Your task to perform on an android device: find snoozed emails in the gmail app Image 0: 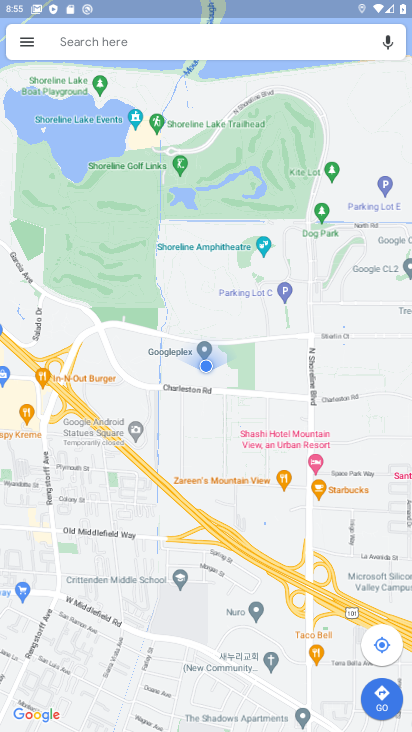
Step 0: press home button
Your task to perform on an android device: find snoozed emails in the gmail app Image 1: 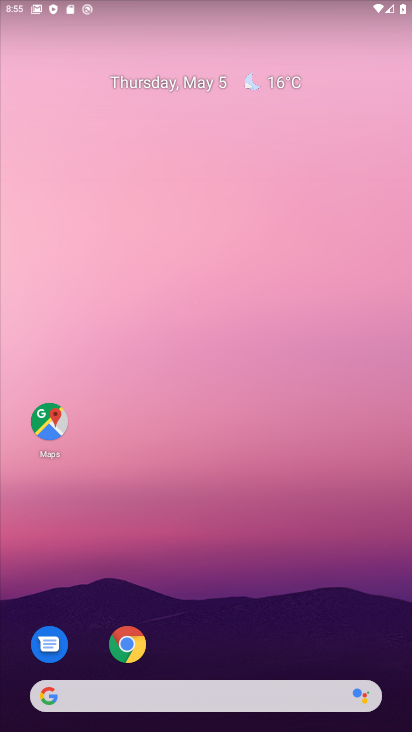
Step 1: drag from (190, 645) to (287, 13)
Your task to perform on an android device: find snoozed emails in the gmail app Image 2: 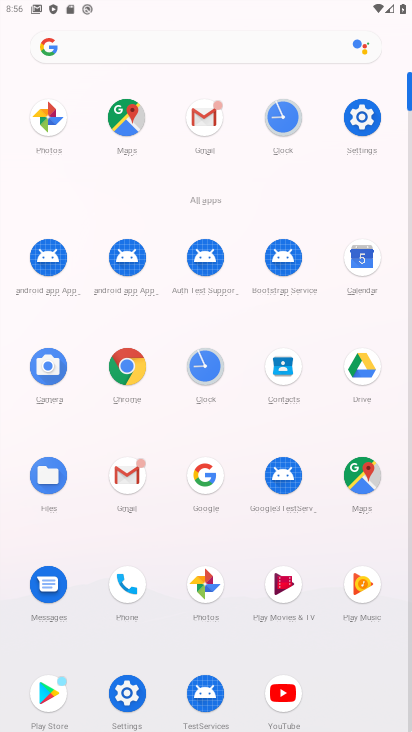
Step 2: click (195, 137)
Your task to perform on an android device: find snoozed emails in the gmail app Image 3: 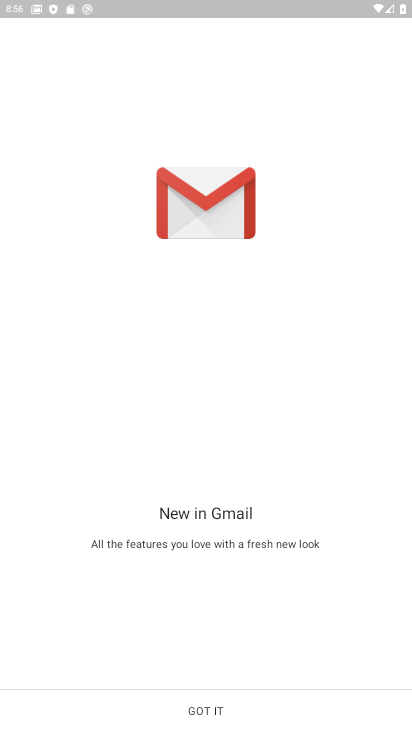
Step 3: click (194, 709)
Your task to perform on an android device: find snoozed emails in the gmail app Image 4: 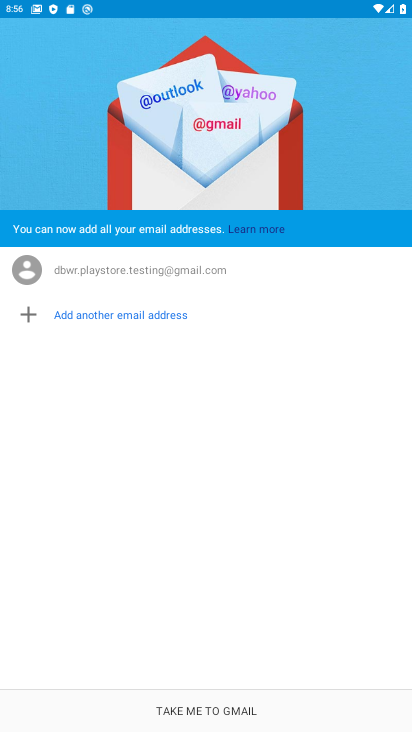
Step 4: click (194, 709)
Your task to perform on an android device: find snoozed emails in the gmail app Image 5: 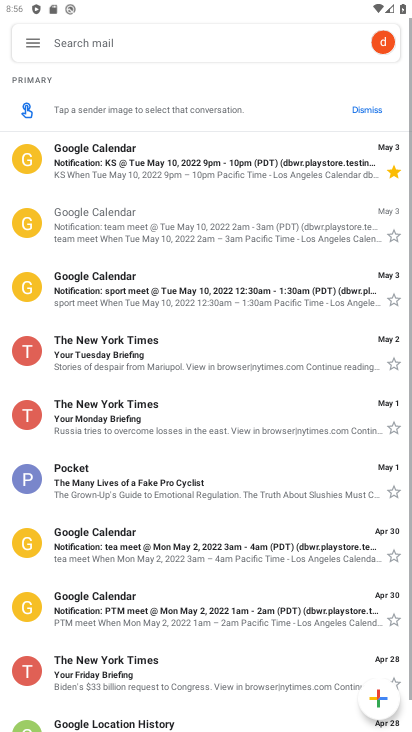
Step 5: click (30, 43)
Your task to perform on an android device: find snoozed emails in the gmail app Image 6: 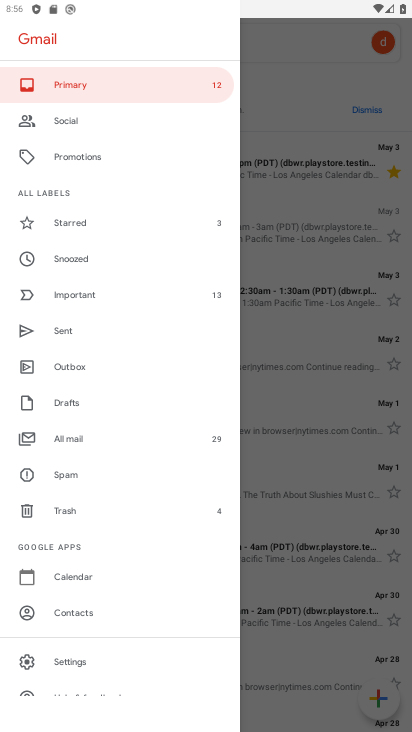
Step 6: click (76, 257)
Your task to perform on an android device: find snoozed emails in the gmail app Image 7: 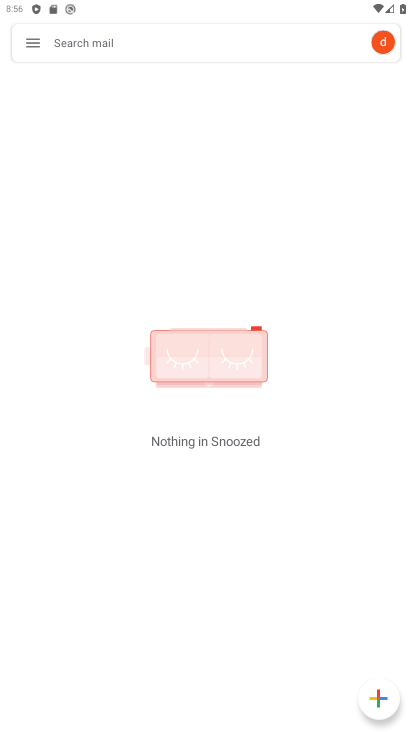
Step 7: task complete